Your task to perform on an android device: check battery use Image 0: 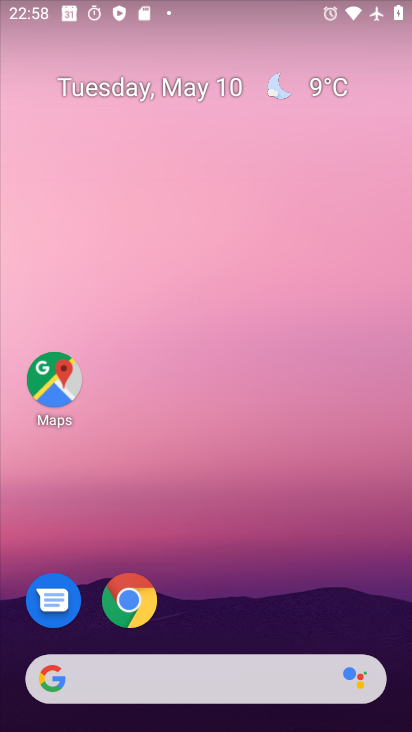
Step 0: drag from (247, 634) to (320, 93)
Your task to perform on an android device: check battery use Image 1: 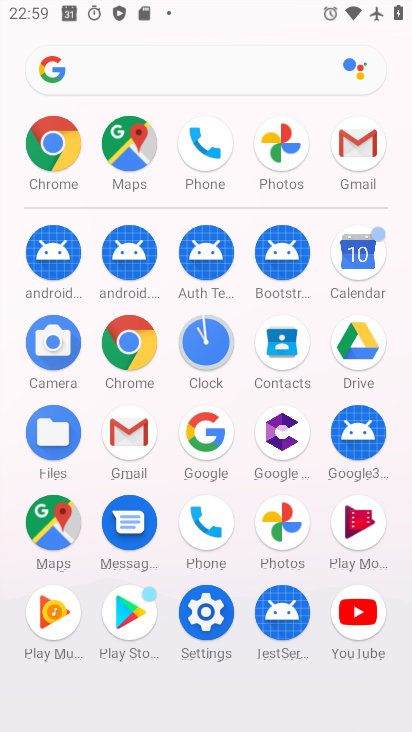
Step 1: click (210, 604)
Your task to perform on an android device: check battery use Image 2: 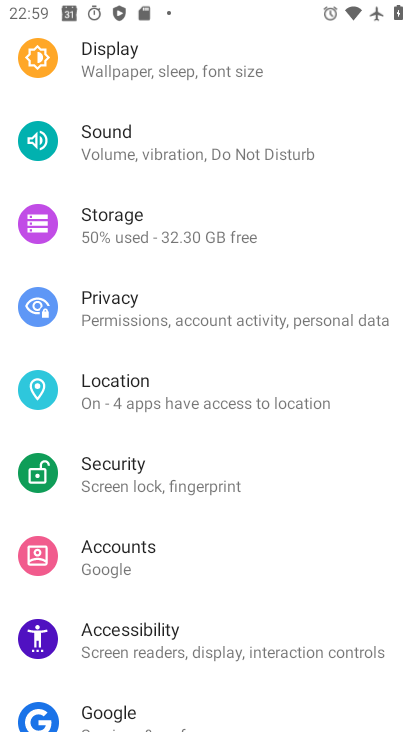
Step 2: drag from (182, 669) to (232, 263)
Your task to perform on an android device: check battery use Image 3: 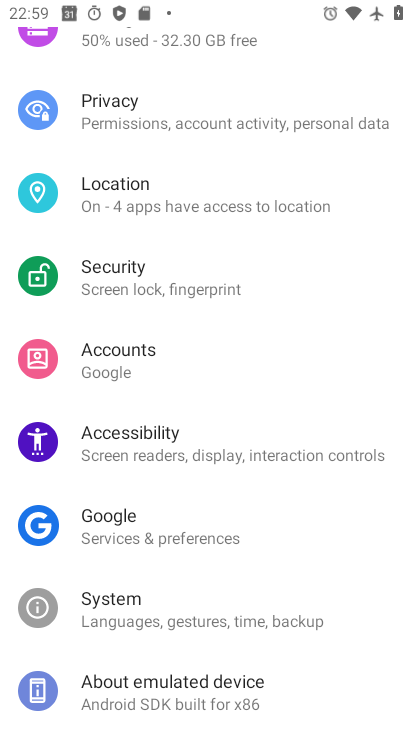
Step 3: drag from (239, 236) to (188, 624)
Your task to perform on an android device: check battery use Image 4: 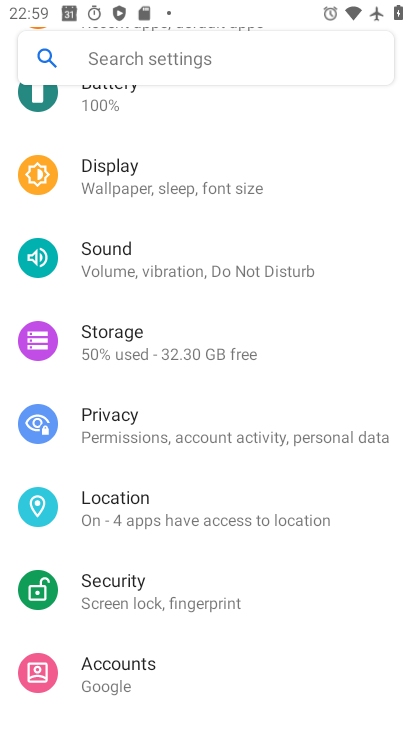
Step 4: drag from (182, 280) to (125, 604)
Your task to perform on an android device: check battery use Image 5: 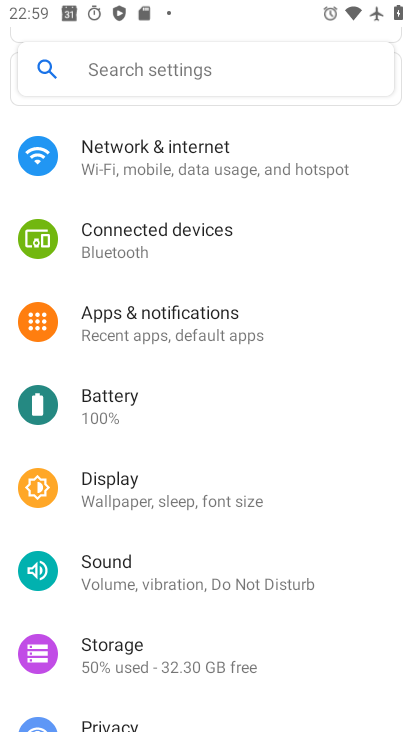
Step 5: click (108, 412)
Your task to perform on an android device: check battery use Image 6: 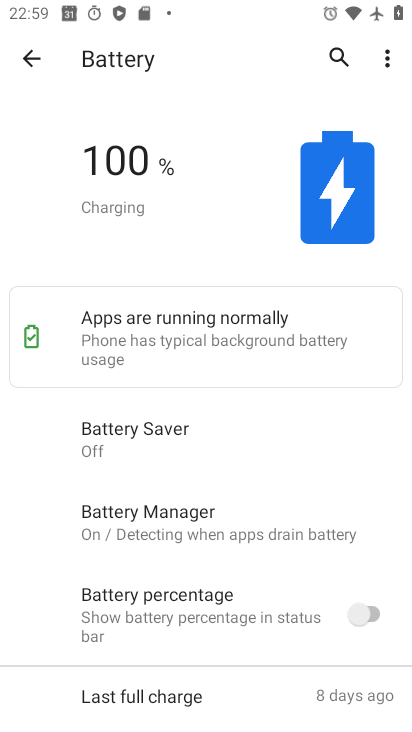
Step 6: task complete